Your task to perform on an android device: Open the Play Movies app and select the watchlist tab. Image 0: 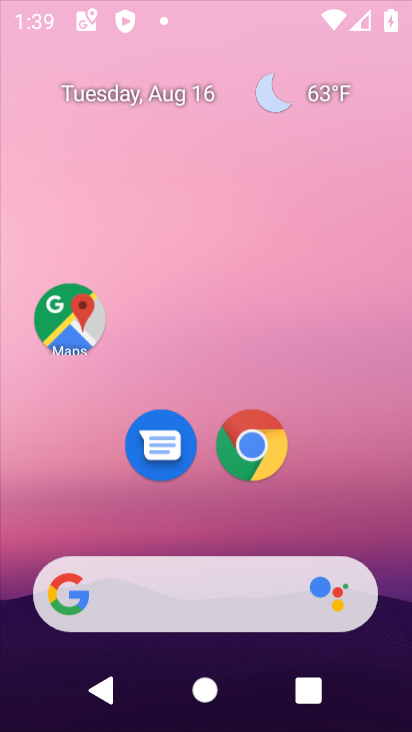
Step 0: press home button
Your task to perform on an android device: Open the Play Movies app and select the watchlist tab. Image 1: 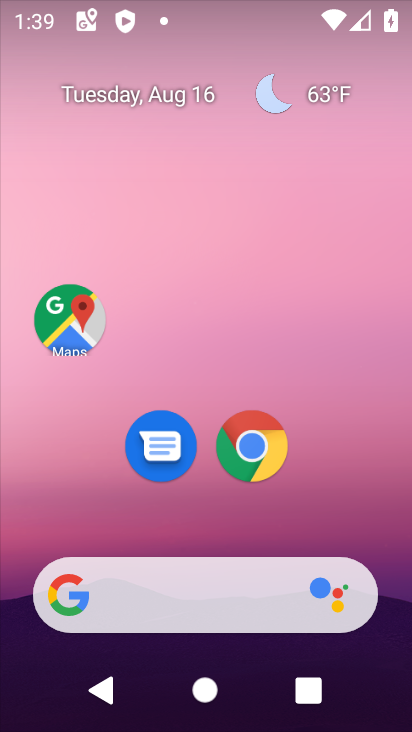
Step 1: drag from (205, 528) to (205, 0)
Your task to perform on an android device: Open the Play Movies app and select the watchlist tab. Image 2: 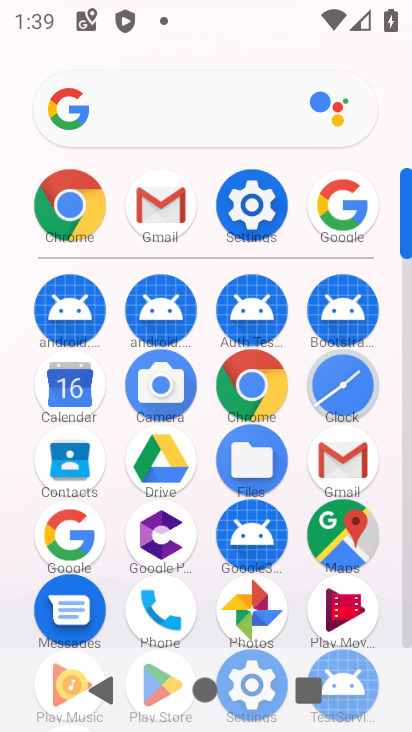
Step 2: click (339, 600)
Your task to perform on an android device: Open the Play Movies app and select the watchlist tab. Image 3: 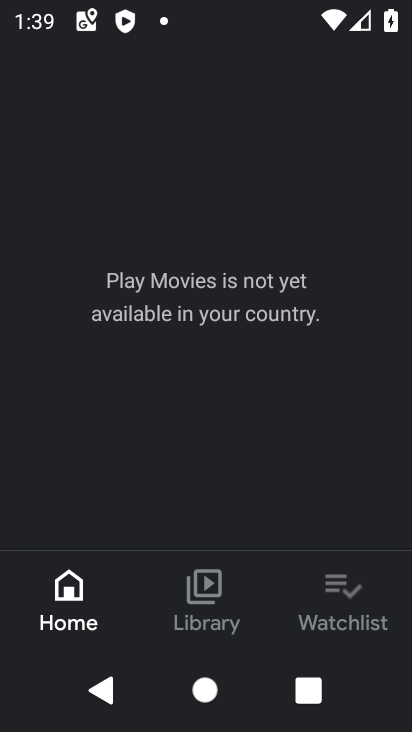
Step 3: click (339, 593)
Your task to perform on an android device: Open the Play Movies app and select the watchlist tab. Image 4: 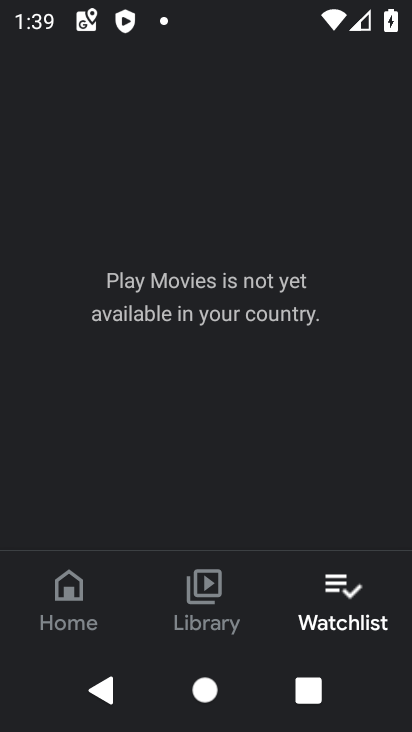
Step 4: task complete